Your task to perform on an android device: toggle translation in the chrome app Image 0: 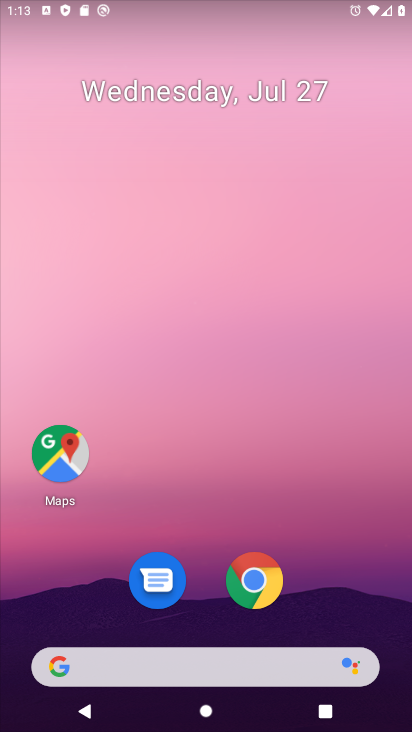
Step 0: click (259, 598)
Your task to perform on an android device: toggle translation in the chrome app Image 1: 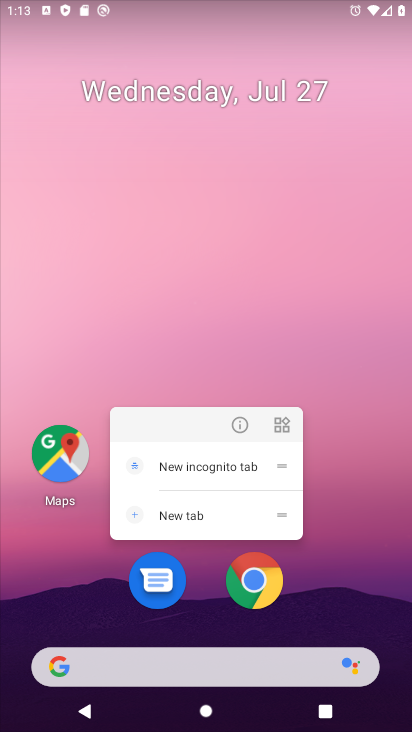
Step 1: click (261, 591)
Your task to perform on an android device: toggle translation in the chrome app Image 2: 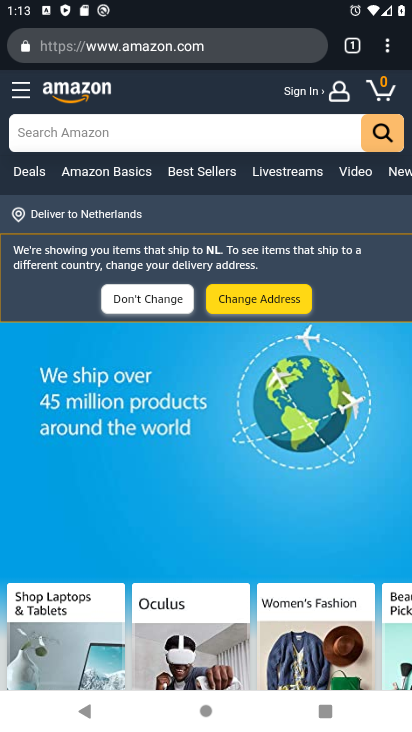
Step 2: click (387, 58)
Your task to perform on an android device: toggle translation in the chrome app Image 3: 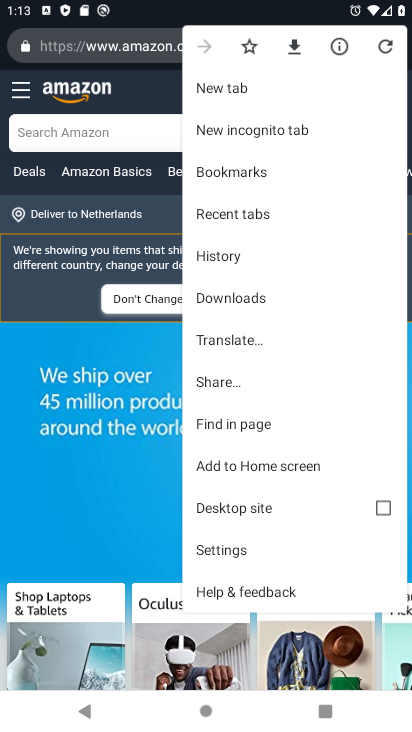
Step 3: click (239, 553)
Your task to perform on an android device: toggle translation in the chrome app Image 4: 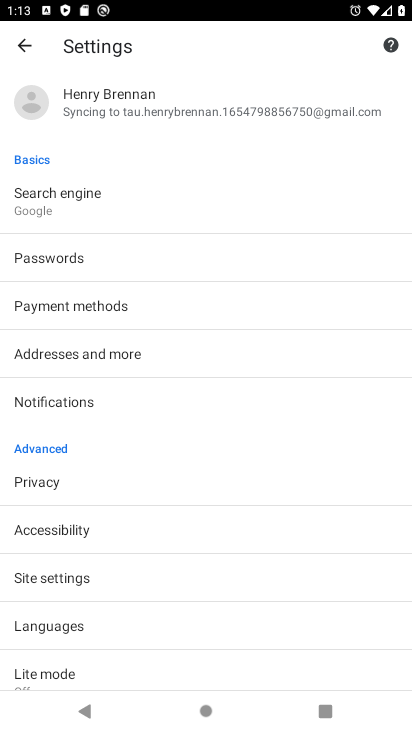
Step 4: click (98, 634)
Your task to perform on an android device: toggle translation in the chrome app Image 5: 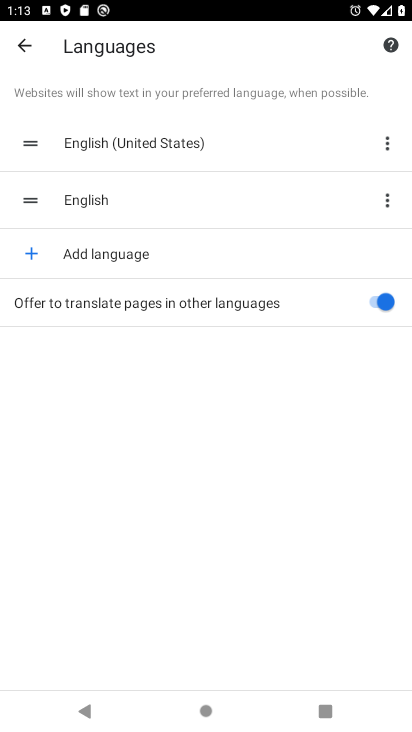
Step 5: click (256, 303)
Your task to perform on an android device: toggle translation in the chrome app Image 6: 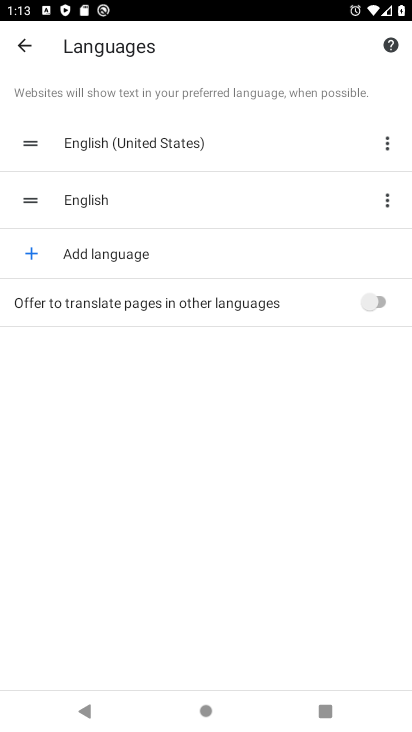
Step 6: click (256, 303)
Your task to perform on an android device: toggle translation in the chrome app Image 7: 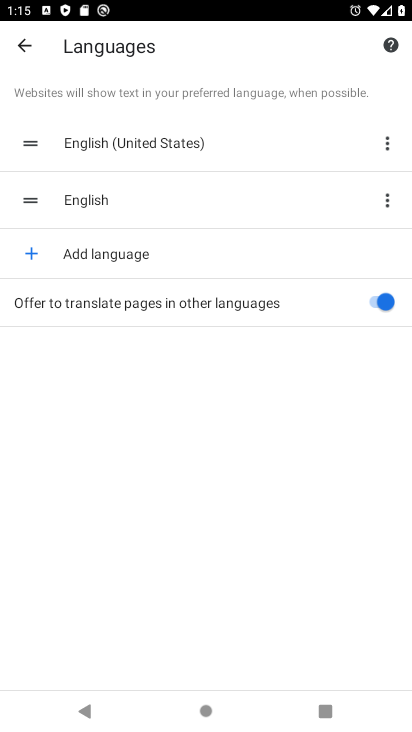
Step 7: task complete